Your task to perform on an android device: Open Amazon Image 0: 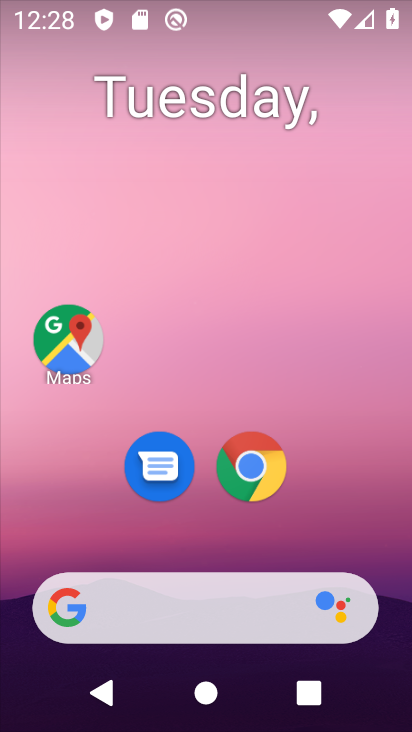
Step 0: click (238, 455)
Your task to perform on an android device: Open Amazon Image 1: 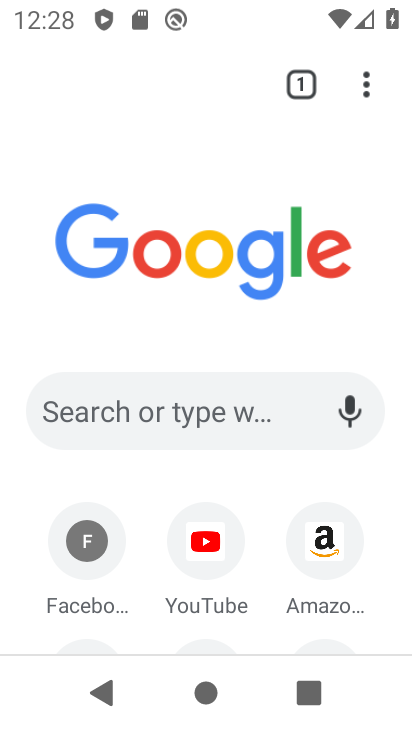
Step 1: click (323, 540)
Your task to perform on an android device: Open Amazon Image 2: 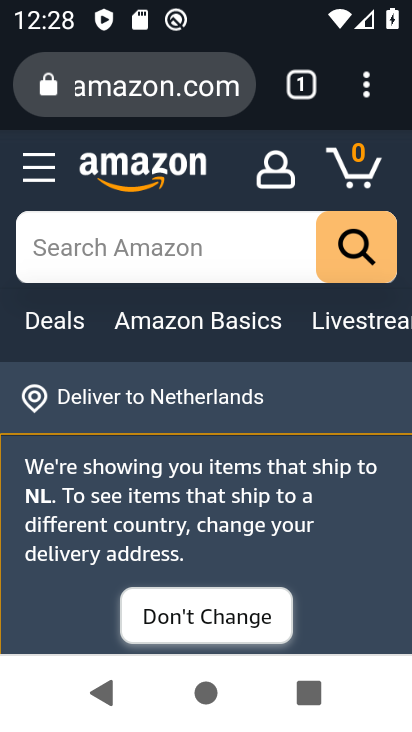
Step 2: task complete